Your task to perform on an android device: turn off picture-in-picture Image 0: 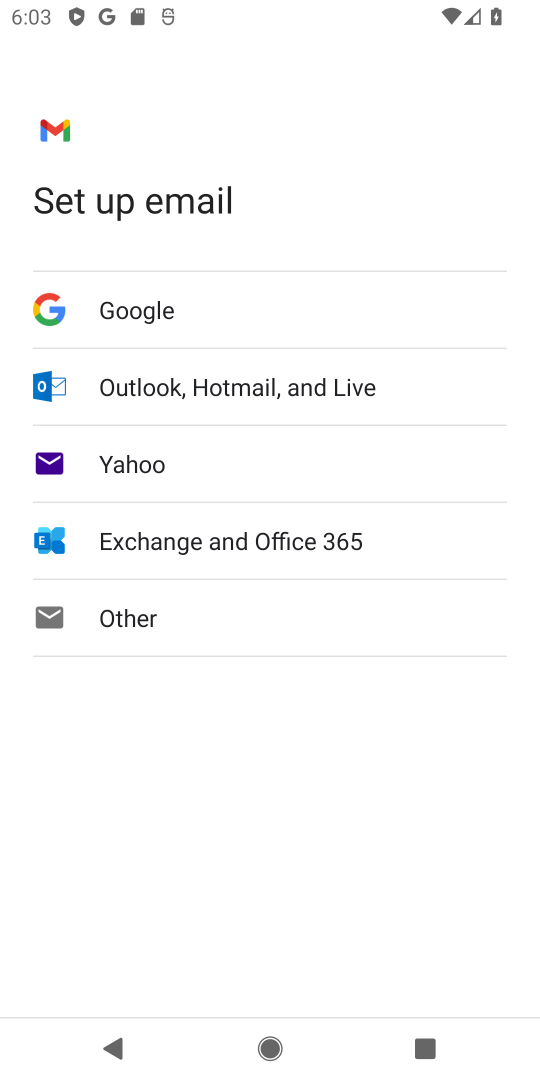
Step 0: press home button
Your task to perform on an android device: turn off picture-in-picture Image 1: 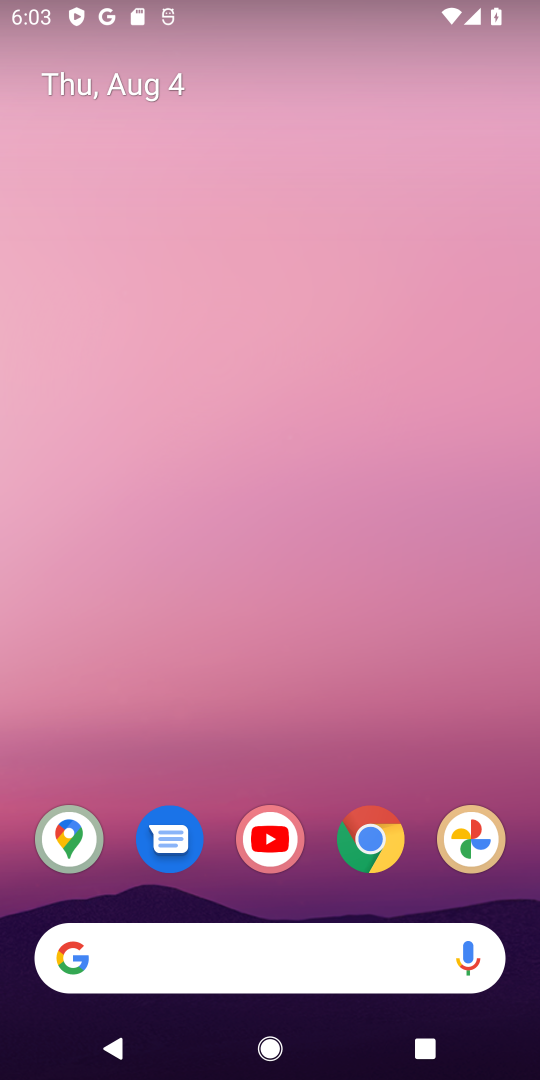
Step 1: click (377, 849)
Your task to perform on an android device: turn off picture-in-picture Image 2: 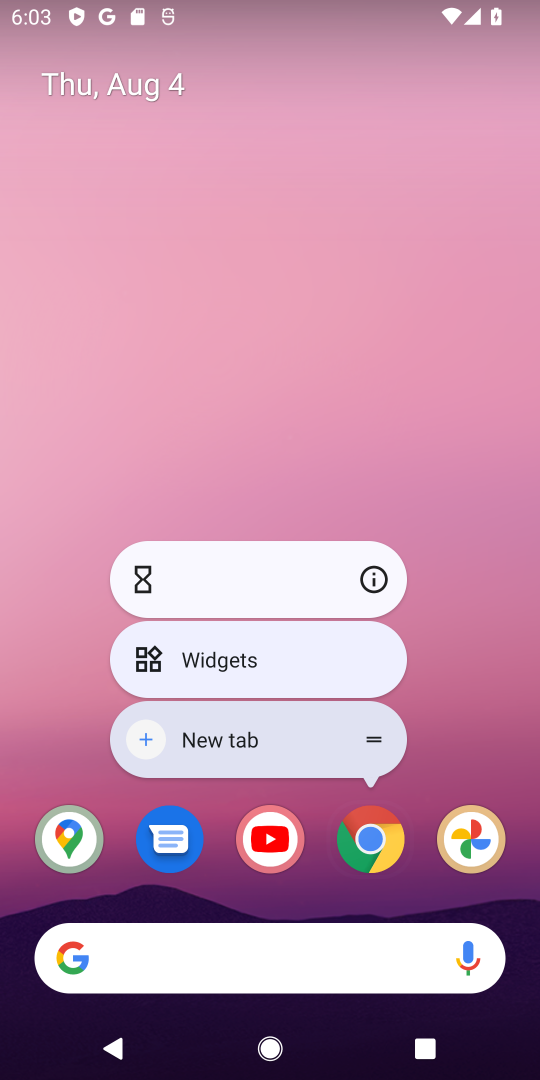
Step 2: click (376, 580)
Your task to perform on an android device: turn off picture-in-picture Image 3: 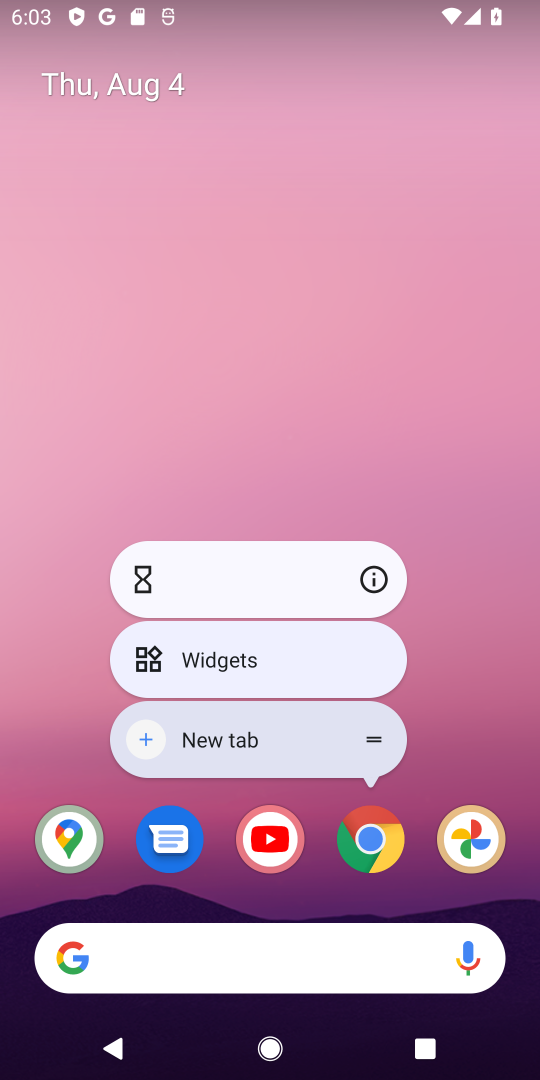
Step 3: click (380, 576)
Your task to perform on an android device: turn off picture-in-picture Image 4: 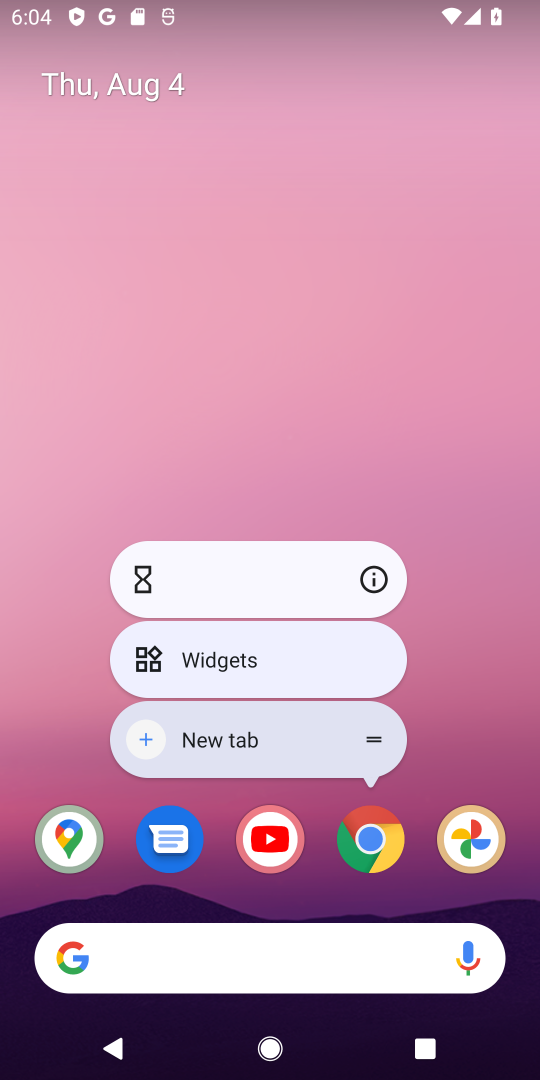
Step 4: click (380, 576)
Your task to perform on an android device: turn off picture-in-picture Image 5: 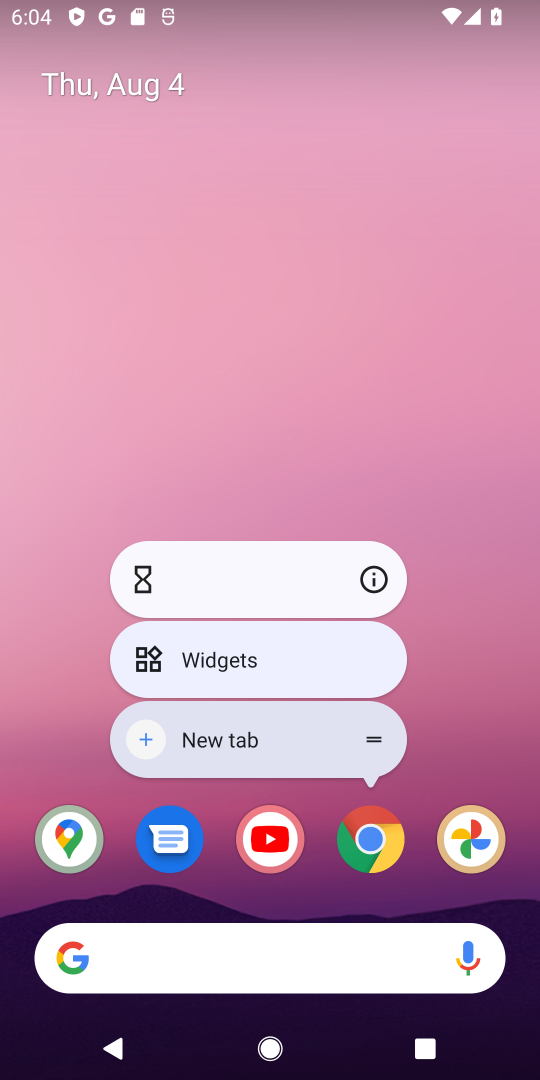
Step 5: click (381, 453)
Your task to perform on an android device: turn off picture-in-picture Image 6: 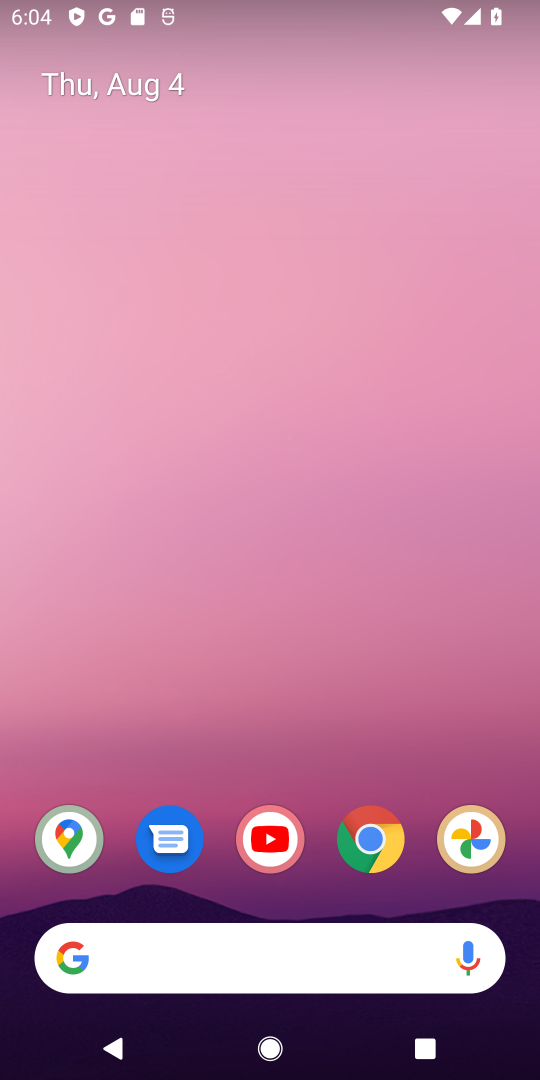
Step 6: drag from (418, 760) to (535, 4)
Your task to perform on an android device: turn off picture-in-picture Image 7: 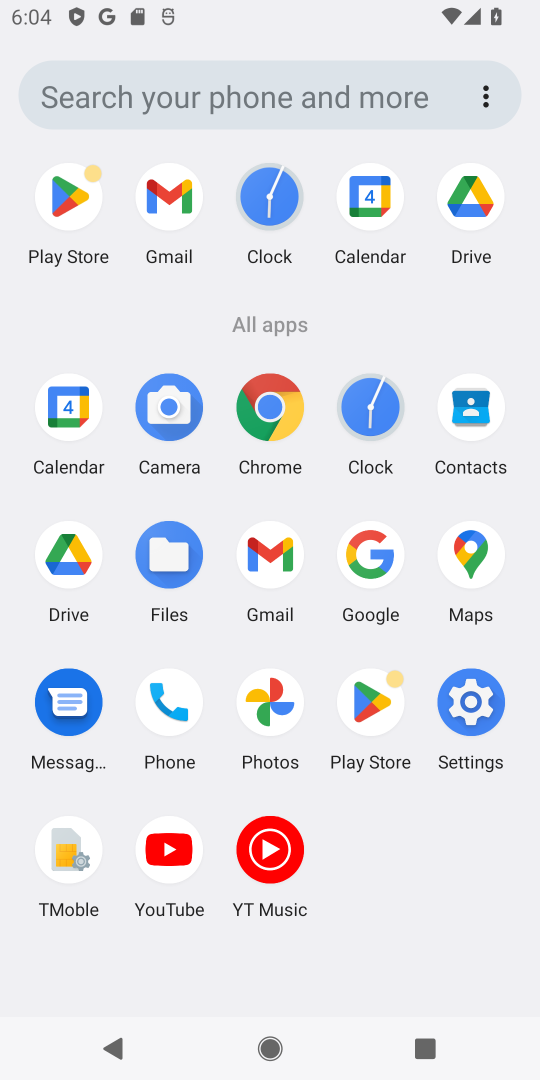
Step 7: click (275, 406)
Your task to perform on an android device: turn off picture-in-picture Image 8: 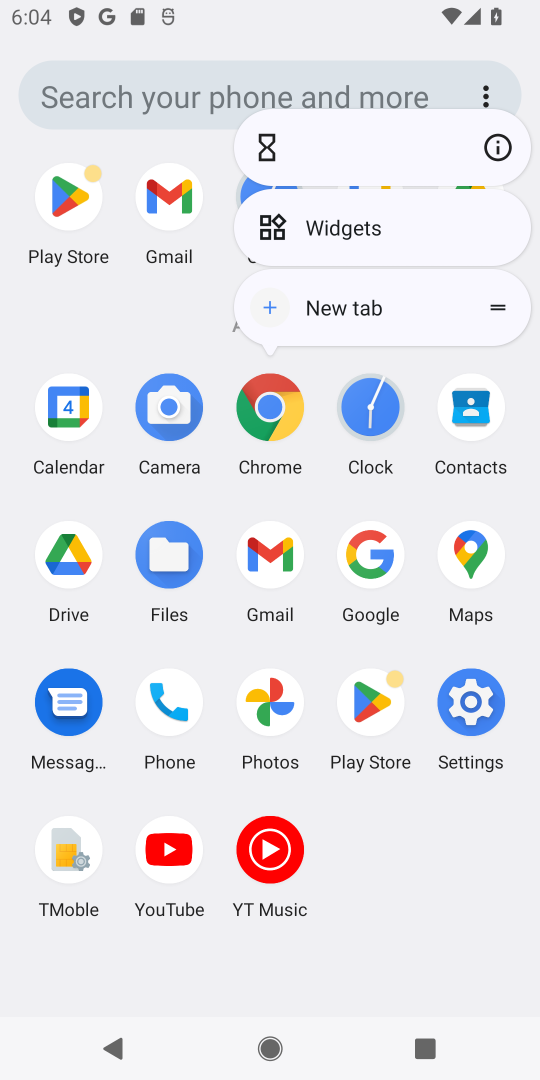
Step 8: click (501, 152)
Your task to perform on an android device: turn off picture-in-picture Image 9: 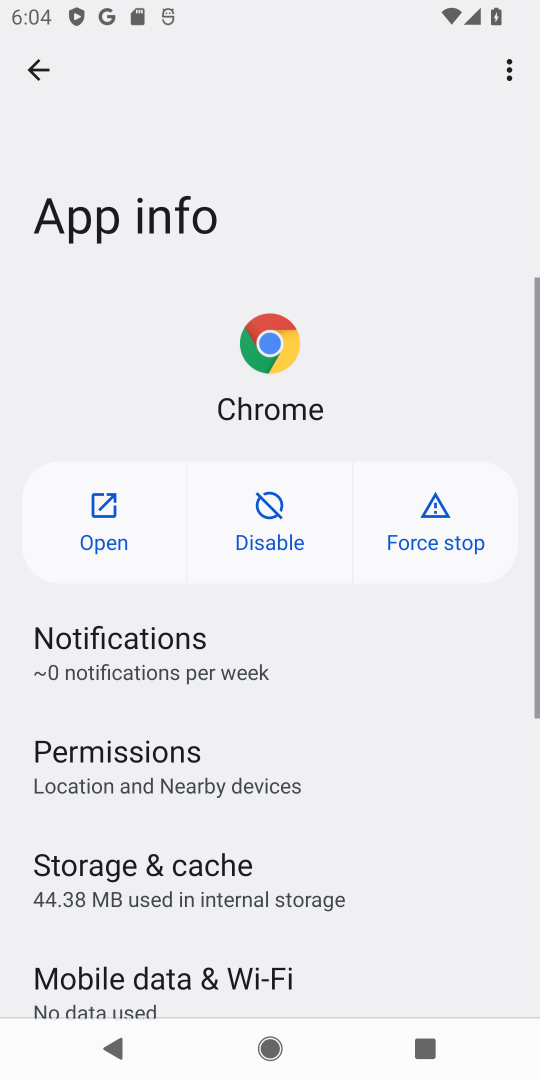
Step 9: drag from (334, 687) to (453, 12)
Your task to perform on an android device: turn off picture-in-picture Image 10: 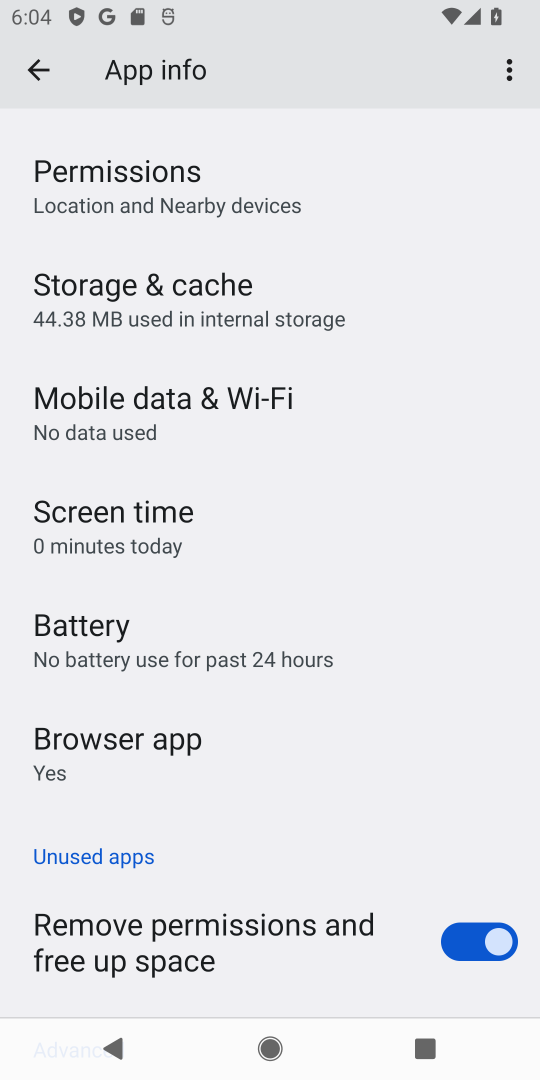
Step 10: drag from (279, 809) to (438, 406)
Your task to perform on an android device: turn off picture-in-picture Image 11: 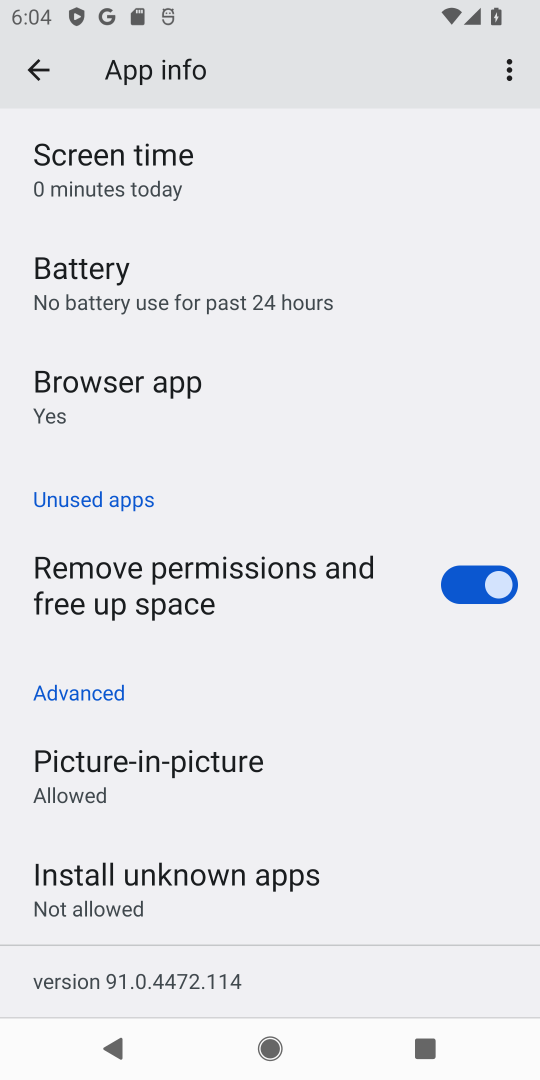
Step 11: click (203, 796)
Your task to perform on an android device: turn off picture-in-picture Image 12: 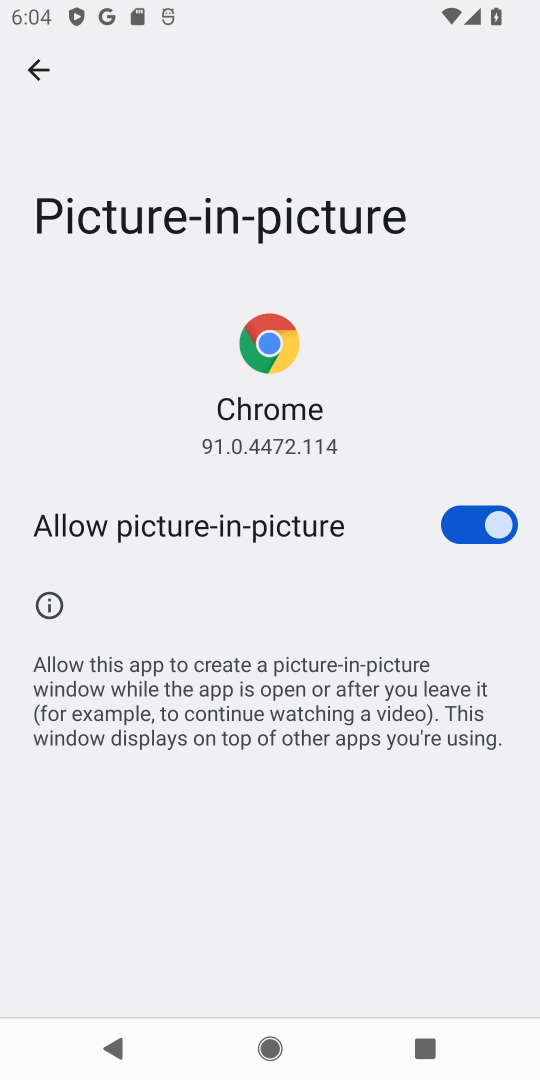
Step 12: click (512, 530)
Your task to perform on an android device: turn off picture-in-picture Image 13: 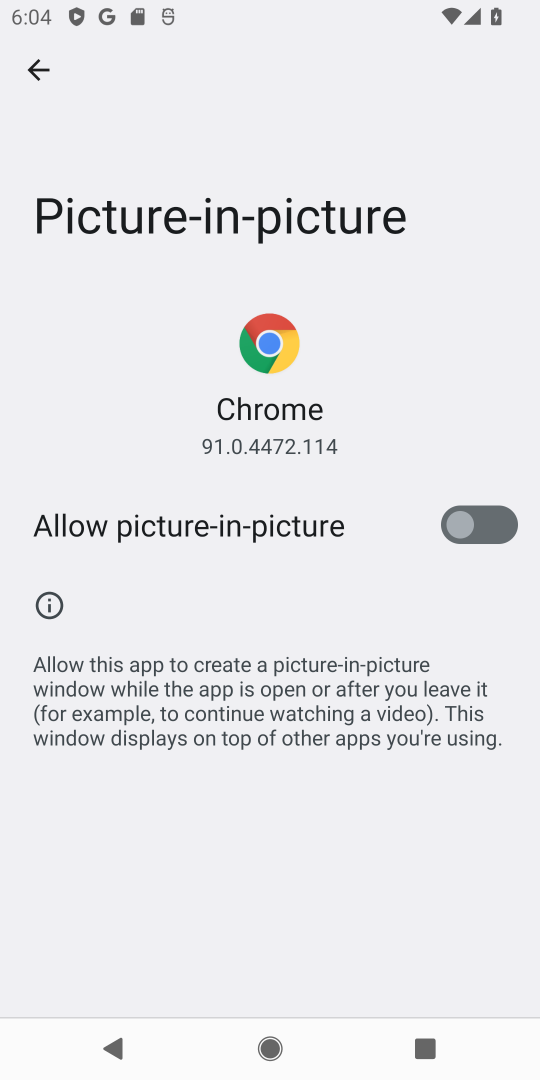
Step 13: task complete